Your task to perform on an android device: Go to Yahoo.com Image 0: 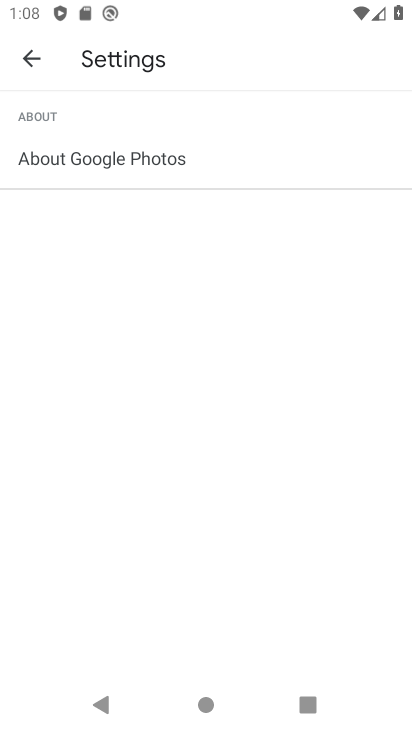
Step 0: press back button
Your task to perform on an android device: Go to Yahoo.com Image 1: 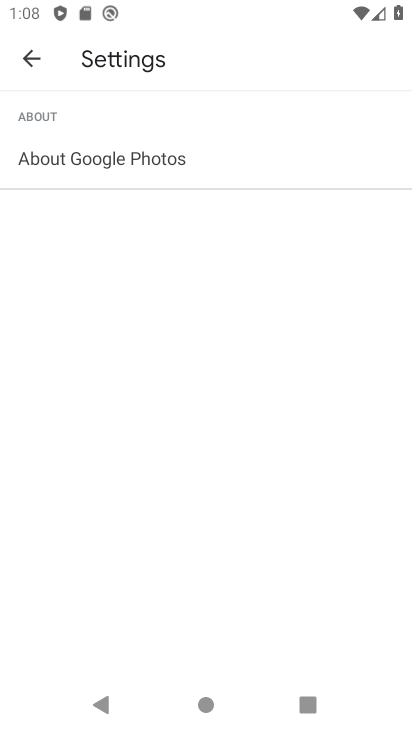
Step 1: drag from (114, 449) to (375, 1)
Your task to perform on an android device: Go to Yahoo.com Image 2: 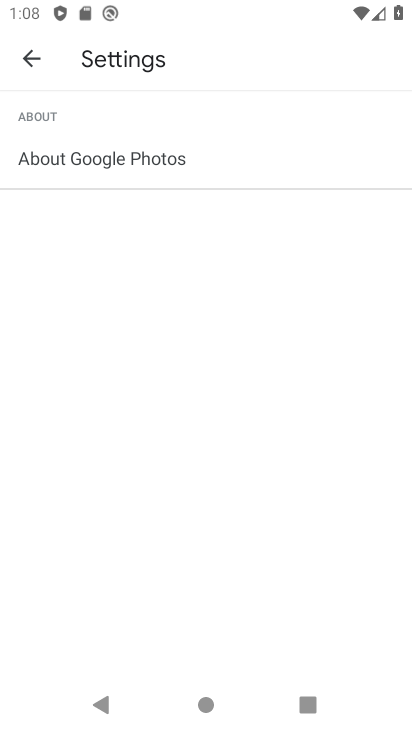
Step 2: press home button
Your task to perform on an android device: Go to Yahoo.com Image 3: 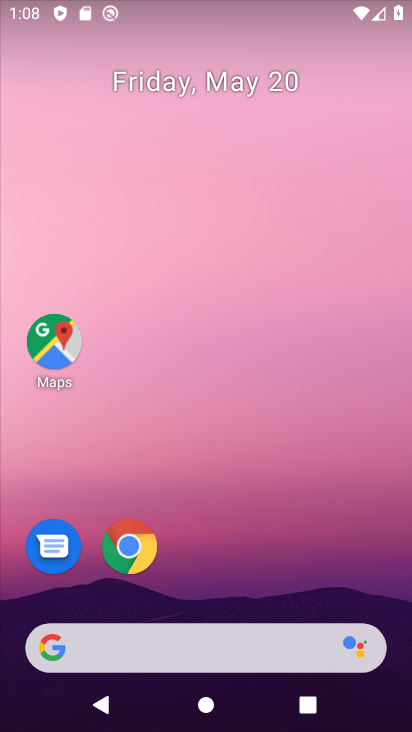
Step 3: click (127, 564)
Your task to perform on an android device: Go to Yahoo.com Image 4: 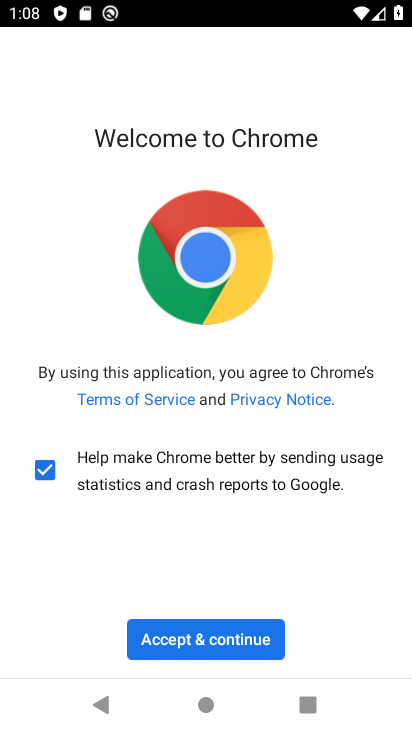
Step 4: click (174, 634)
Your task to perform on an android device: Go to Yahoo.com Image 5: 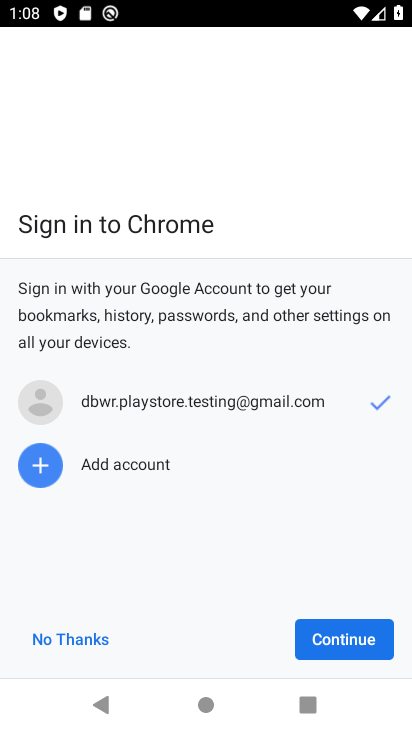
Step 5: click (54, 628)
Your task to perform on an android device: Go to Yahoo.com Image 6: 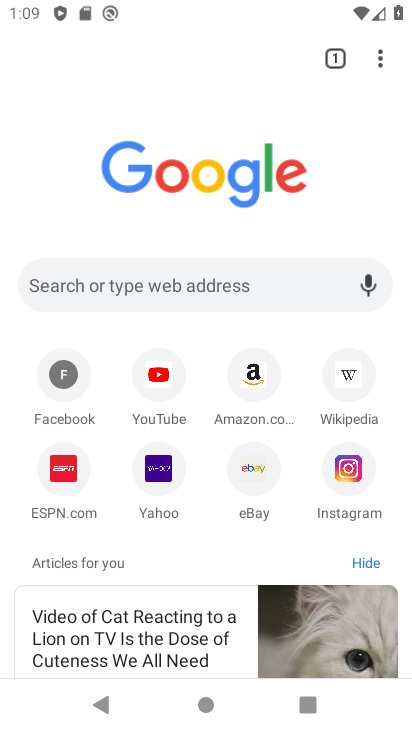
Step 6: click (155, 476)
Your task to perform on an android device: Go to Yahoo.com Image 7: 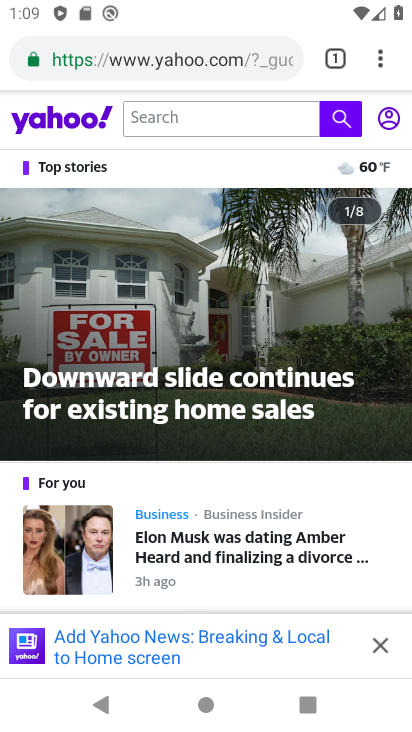
Step 7: click (379, 646)
Your task to perform on an android device: Go to Yahoo.com Image 8: 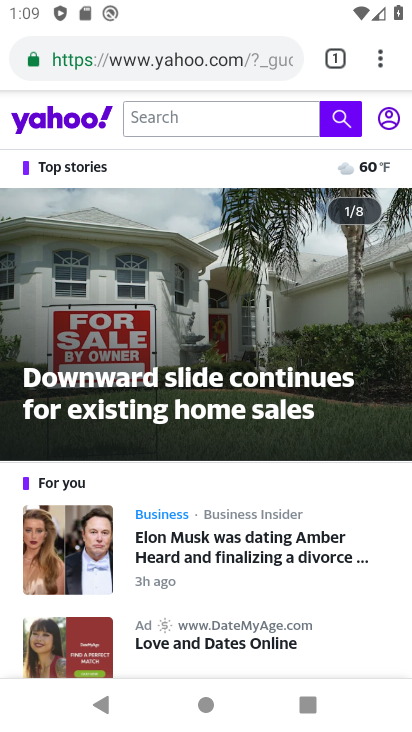
Step 8: task complete